Your task to perform on an android device: Open calendar and show me the first week of next month Image 0: 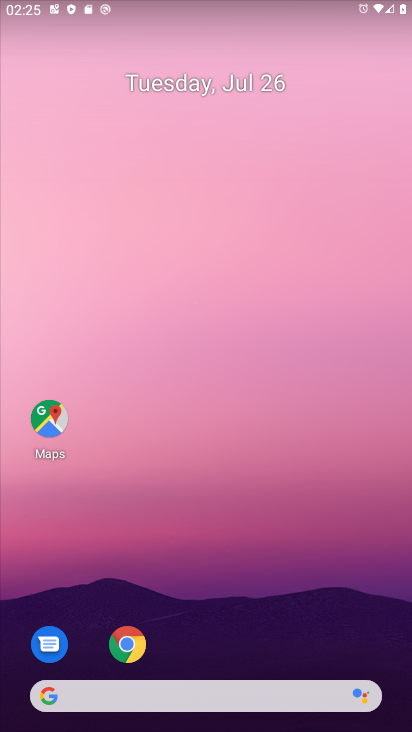
Step 0: drag from (195, 656) to (222, 33)
Your task to perform on an android device: Open calendar and show me the first week of next month Image 1: 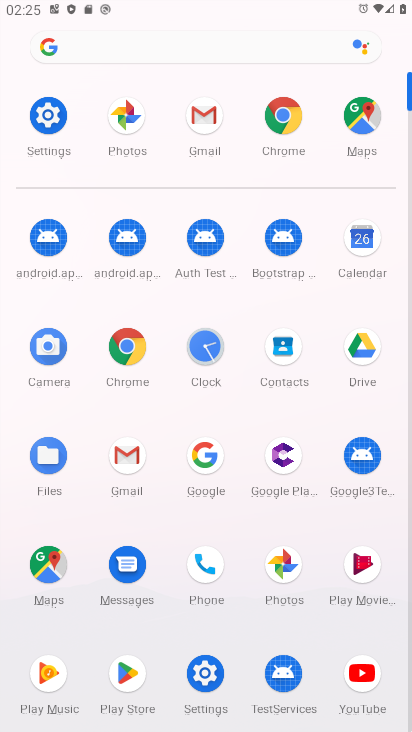
Step 1: click (386, 229)
Your task to perform on an android device: Open calendar and show me the first week of next month Image 2: 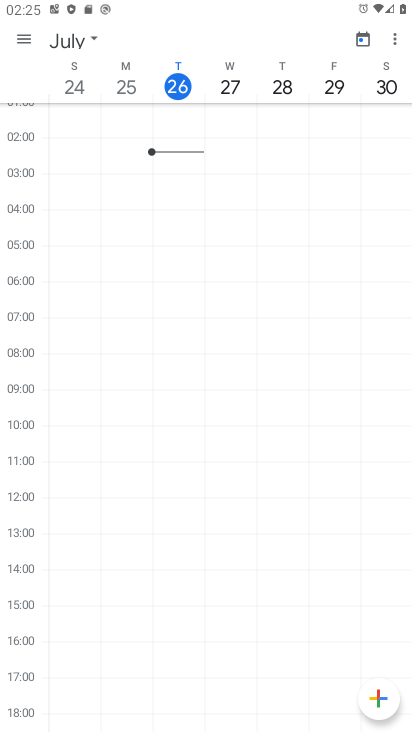
Step 2: click (24, 31)
Your task to perform on an android device: Open calendar and show me the first week of next month Image 3: 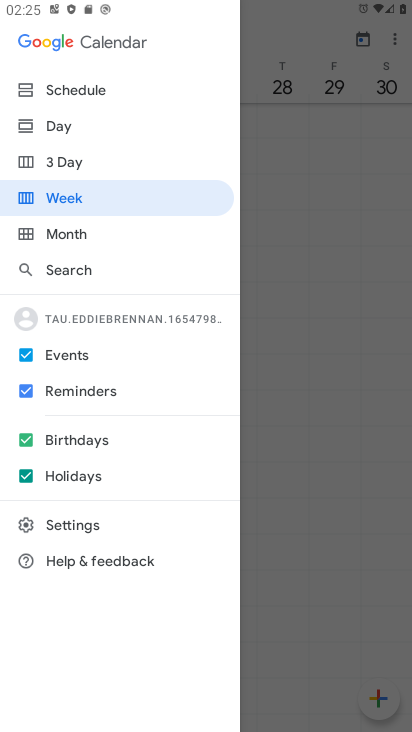
Step 3: click (74, 248)
Your task to perform on an android device: Open calendar and show me the first week of next month Image 4: 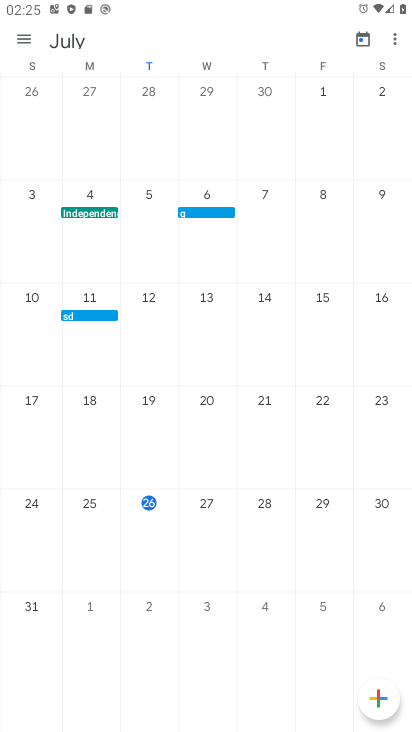
Step 4: drag from (208, 272) to (0, 56)
Your task to perform on an android device: Open calendar and show me the first week of next month Image 5: 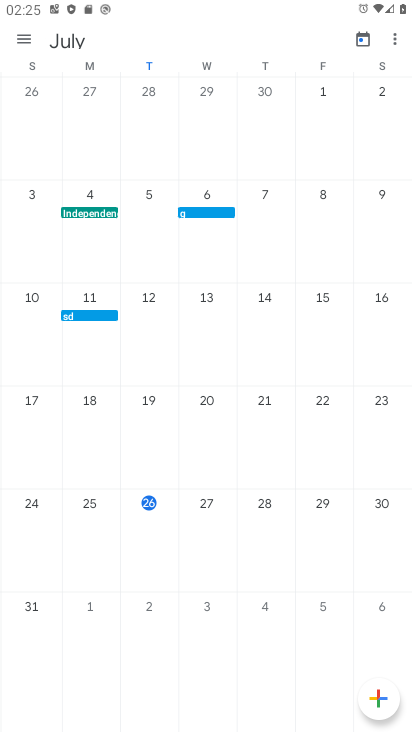
Step 5: drag from (329, 185) to (0, 44)
Your task to perform on an android device: Open calendar and show me the first week of next month Image 6: 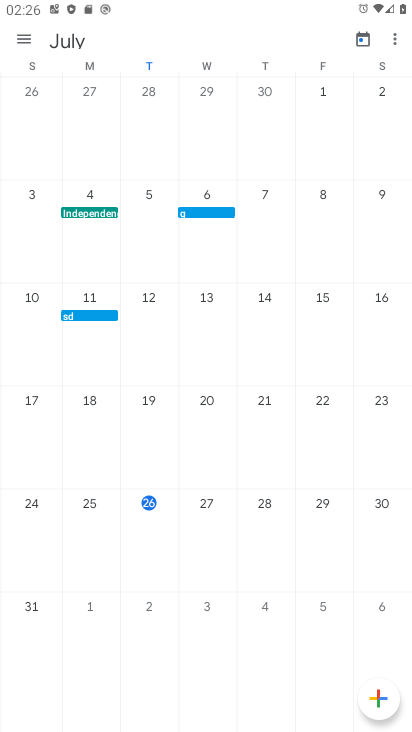
Step 6: drag from (244, 291) to (5, 97)
Your task to perform on an android device: Open calendar and show me the first week of next month Image 7: 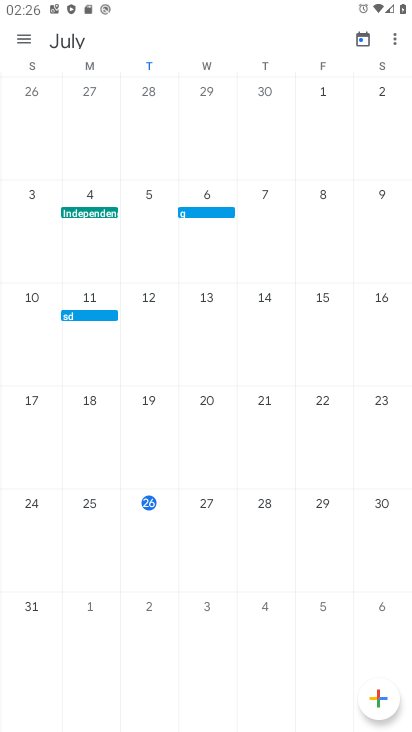
Step 7: drag from (307, 452) to (10, 408)
Your task to perform on an android device: Open calendar and show me the first week of next month Image 8: 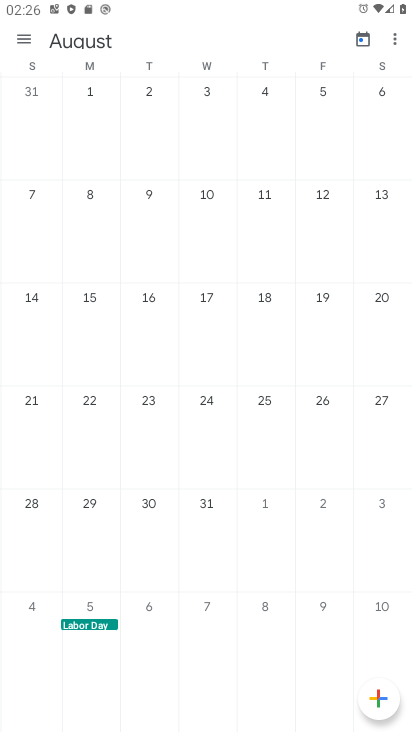
Step 8: click (12, 29)
Your task to perform on an android device: Open calendar and show me the first week of next month Image 9: 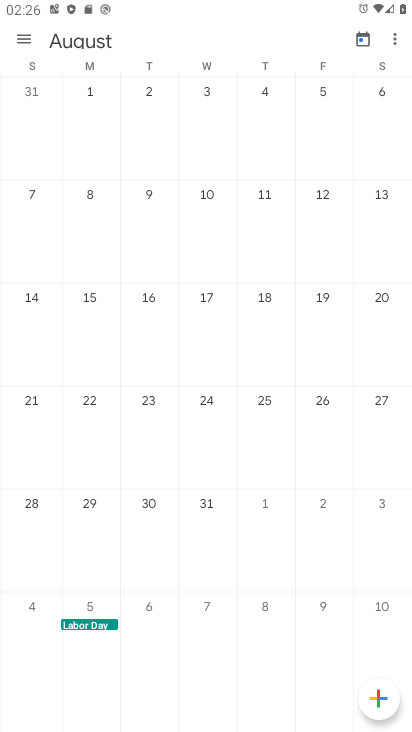
Step 9: click (20, 34)
Your task to perform on an android device: Open calendar and show me the first week of next month Image 10: 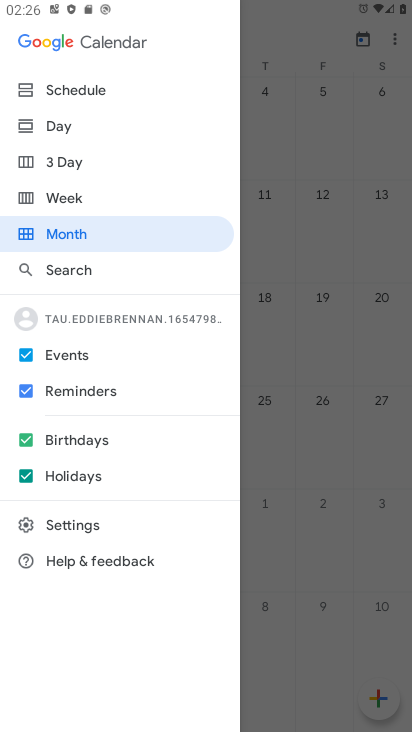
Step 10: click (90, 198)
Your task to perform on an android device: Open calendar and show me the first week of next month Image 11: 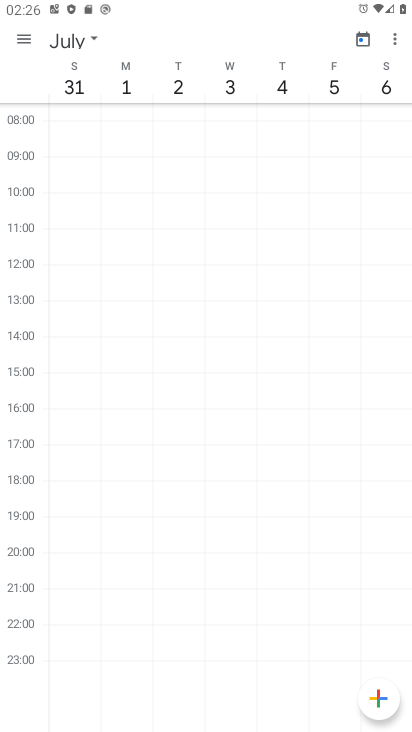
Step 11: task complete